Your task to perform on an android device: turn on showing notifications on the lock screen Image 0: 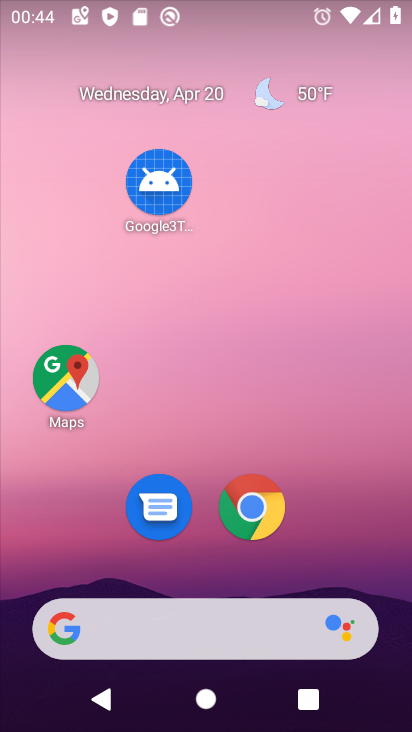
Step 0: drag from (210, 569) to (182, 77)
Your task to perform on an android device: turn on showing notifications on the lock screen Image 1: 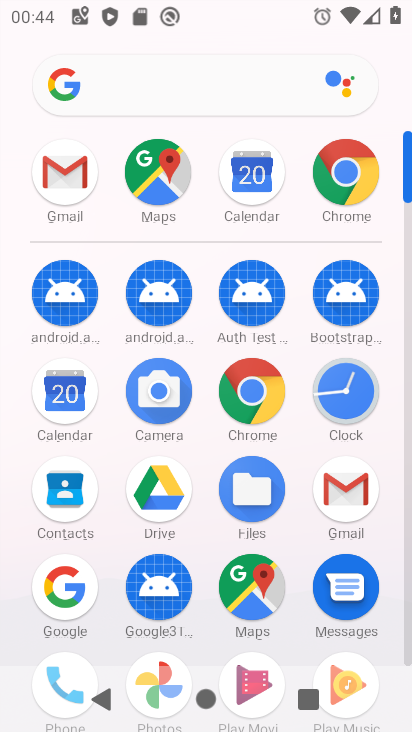
Step 1: drag from (204, 535) to (201, 160)
Your task to perform on an android device: turn on showing notifications on the lock screen Image 2: 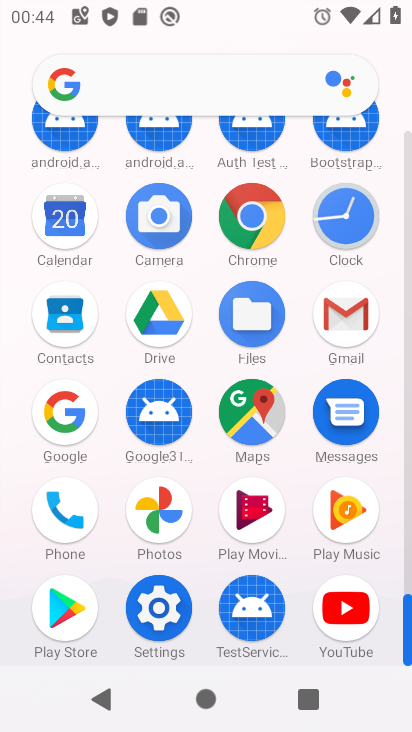
Step 2: click (153, 608)
Your task to perform on an android device: turn on showing notifications on the lock screen Image 3: 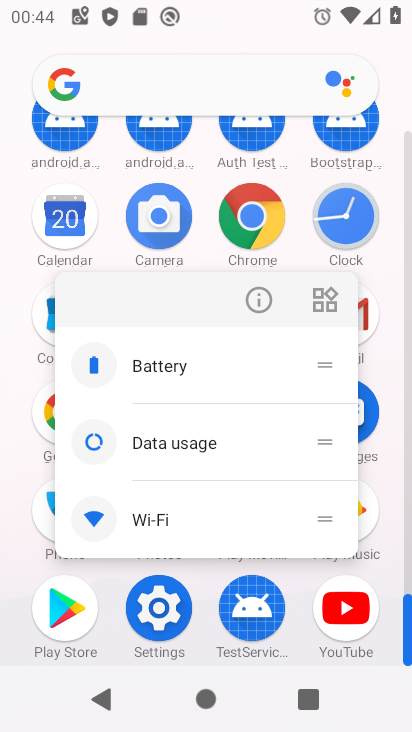
Step 3: click (160, 609)
Your task to perform on an android device: turn on showing notifications on the lock screen Image 4: 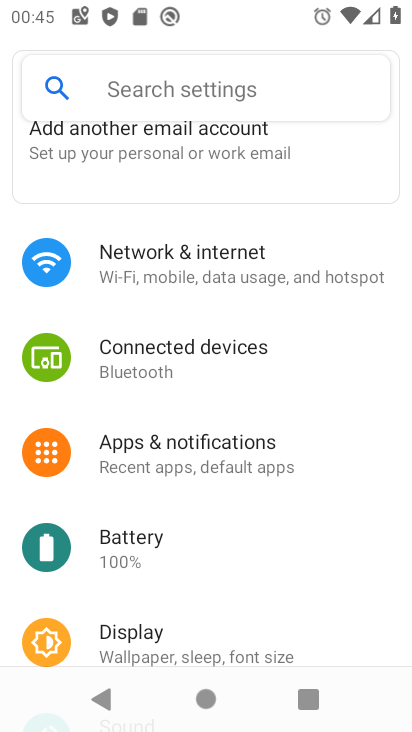
Step 4: click (192, 447)
Your task to perform on an android device: turn on showing notifications on the lock screen Image 5: 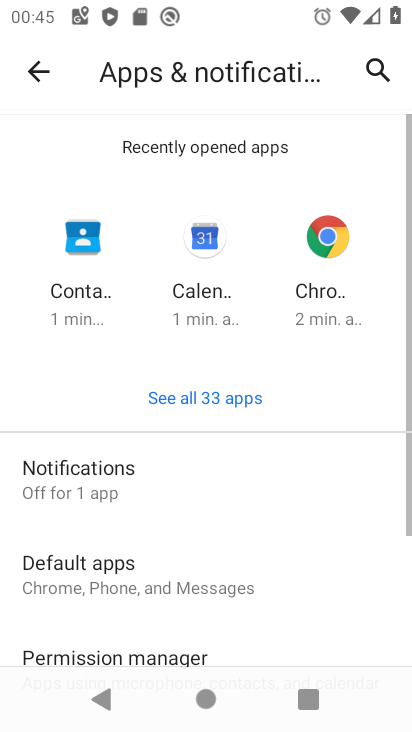
Step 5: drag from (214, 531) to (225, 281)
Your task to perform on an android device: turn on showing notifications on the lock screen Image 6: 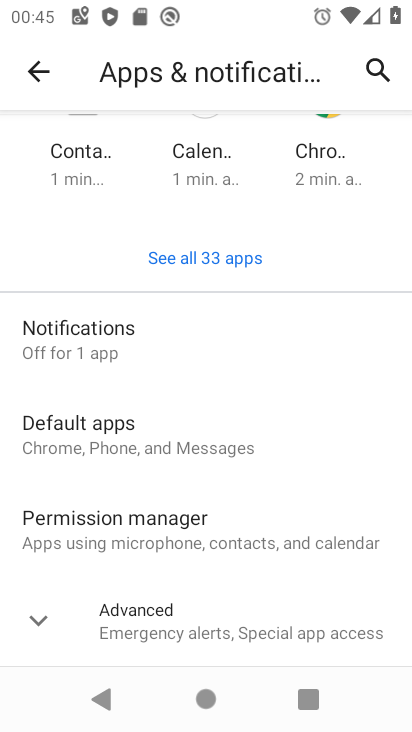
Step 6: click (88, 326)
Your task to perform on an android device: turn on showing notifications on the lock screen Image 7: 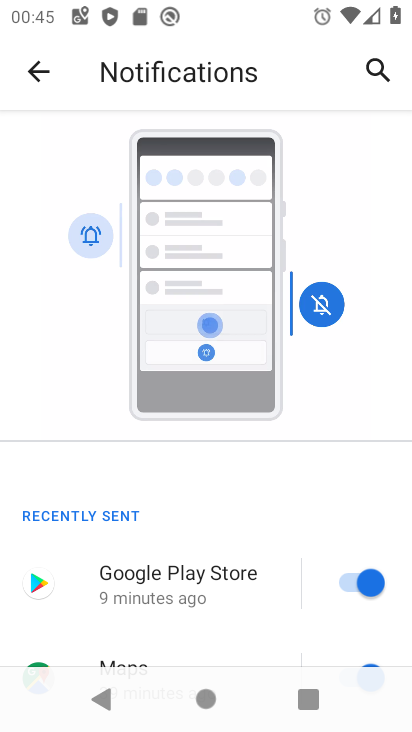
Step 7: drag from (215, 631) to (261, 128)
Your task to perform on an android device: turn on showing notifications on the lock screen Image 8: 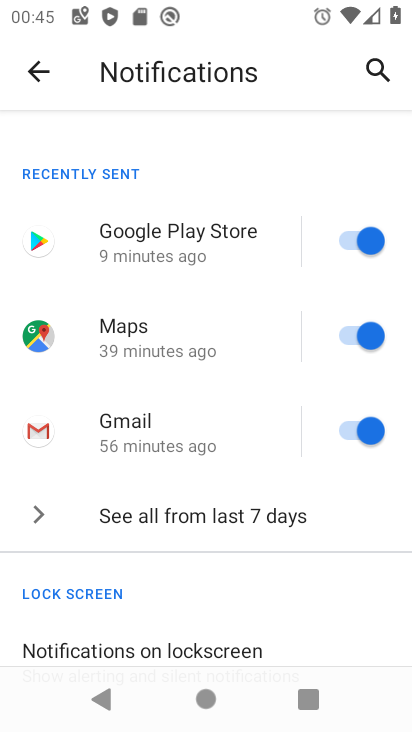
Step 8: drag from (159, 581) to (186, 280)
Your task to perform on an android device: turn on showing notifications on the lock screen Image 9: 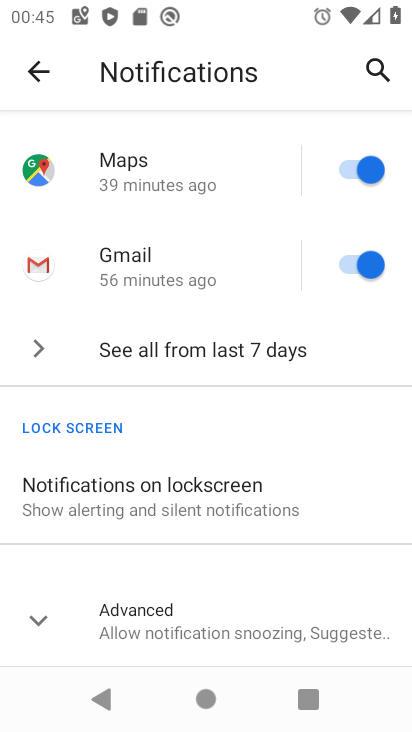
Step 9: click (122, 479)
Your task to perform on an android device: turn on showing notifications on the lock screen Image 10: 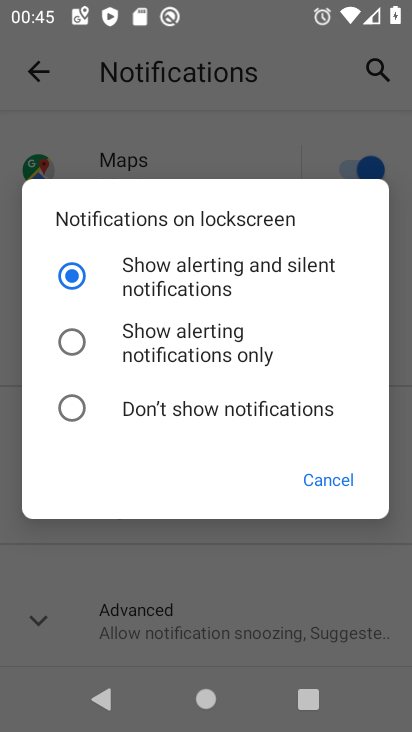
Step 10: task complete